Your task to perform on an android device: open app "Reddit" (install if not already installed) Image 0: 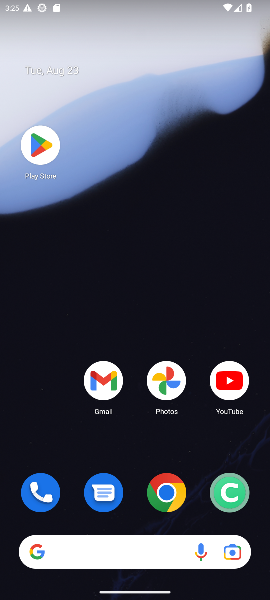
Step 0: click (28, 165)
Your task to perform on an android device: open app "Reddit" (install if not already installed) Image 1: 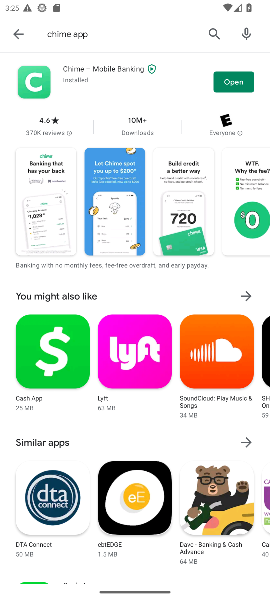
Step 1: click (214, 34)
Your task to perform on an android device: open app "Reddit" (install if not already installed) Image 2: 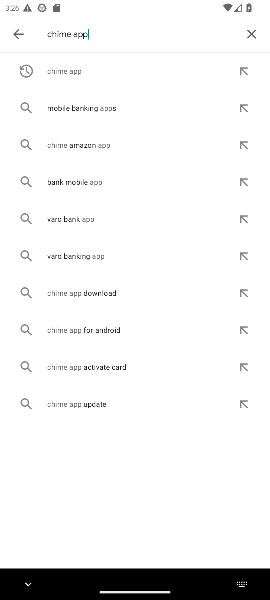
Step 2: click (254, 28)
Your task to perform on an android device: open app "Reddit" (install if not already installed) Image 3: 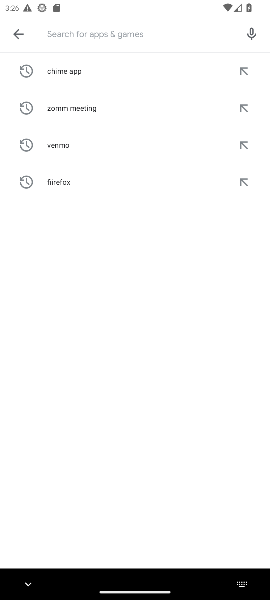
Step 3: type "reddit"
Your task to perform on an android device: open app "Reddit" (install if not already installed) Image 4: 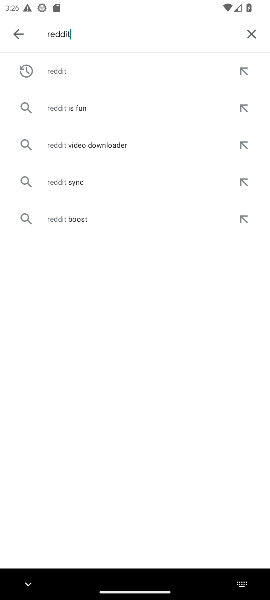
Step 4: click (71, 70)
Your task to perform on an android device: open app "Reddit" (install if not already installed) Image 5: 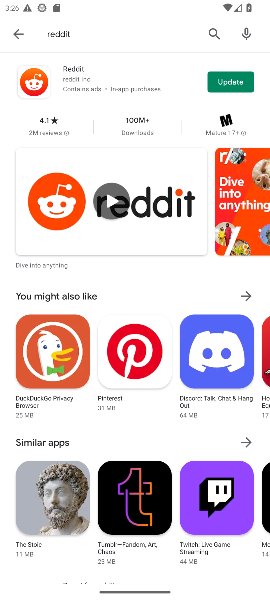
Step 5: click (225, 92)
Your task to perform on an android device: open app "Reddit" (install if not already installed) Image 6: 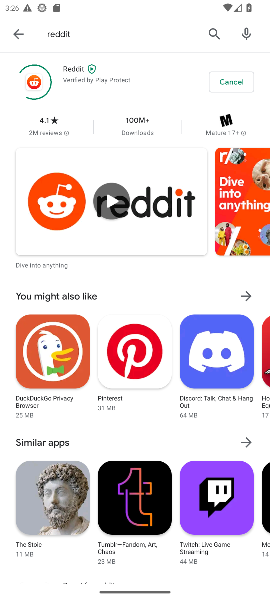
Step 6: task complete